Your task to perform on an android device: Go to Wikipedia Image 0: 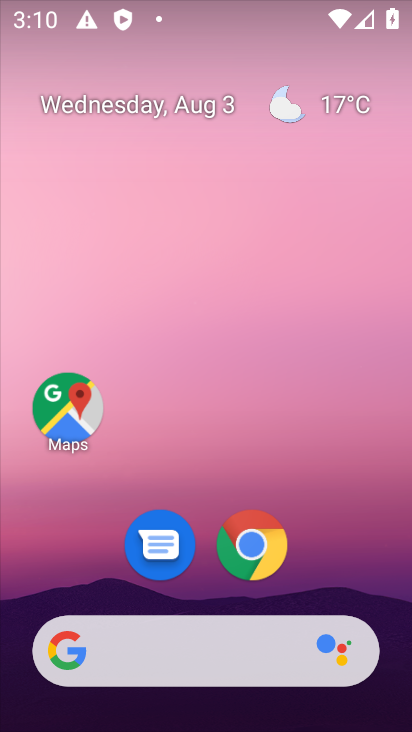
Step 0: click (249, 543)
Your task to perform on an android device: Go to Wikipedia Image 1: 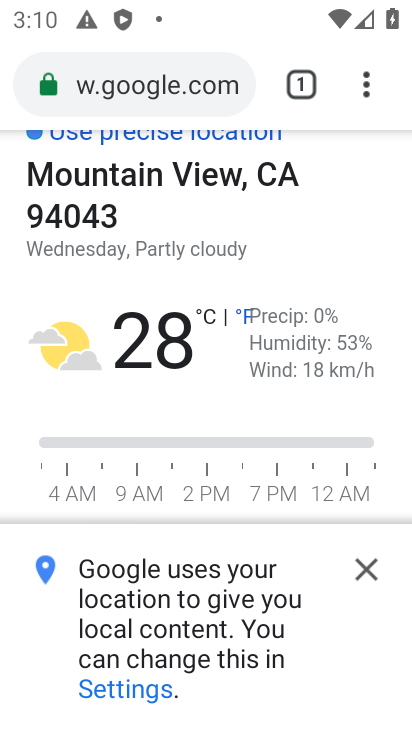
Step 1: click (156, 106)
Your task to perform on an android device: Go to Wikipedia Image 2: 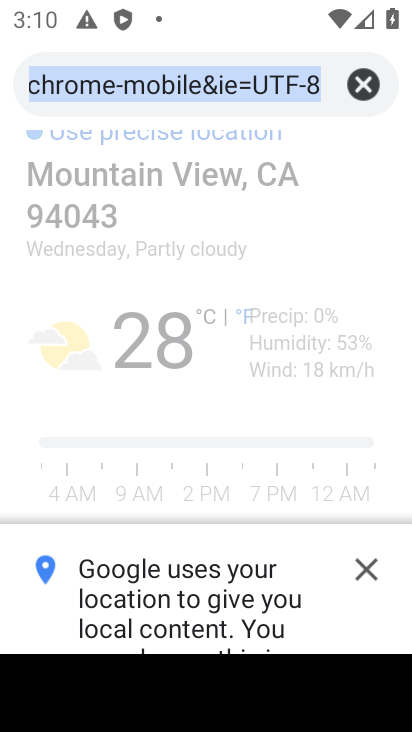
Step 2: type "wikipedia"
Your task to perform on an android device: Go to Wikipedia Image 3: 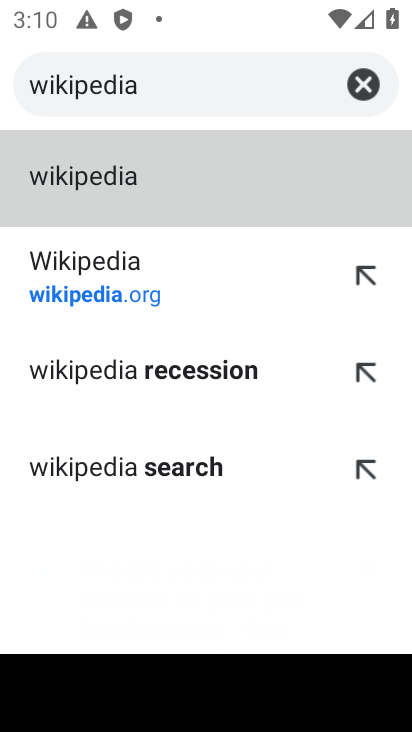
Step 3: click (139, 191)
Your task to perform on an android device: Go to Wikipedia Image 4: 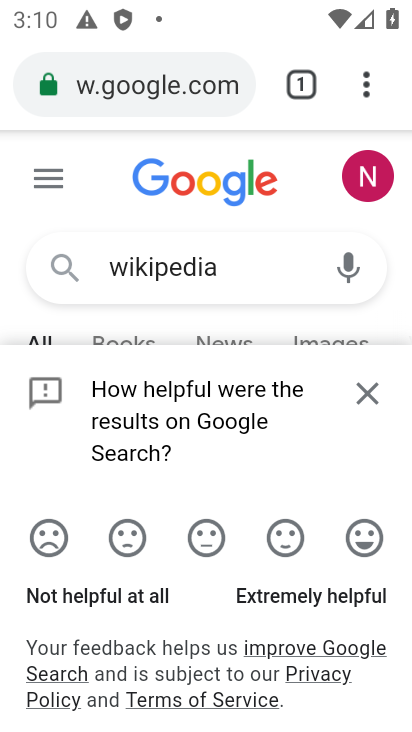
Step 4: task complete